Your task to perform on an android device: open a bookmark in the chrome app Image 0: 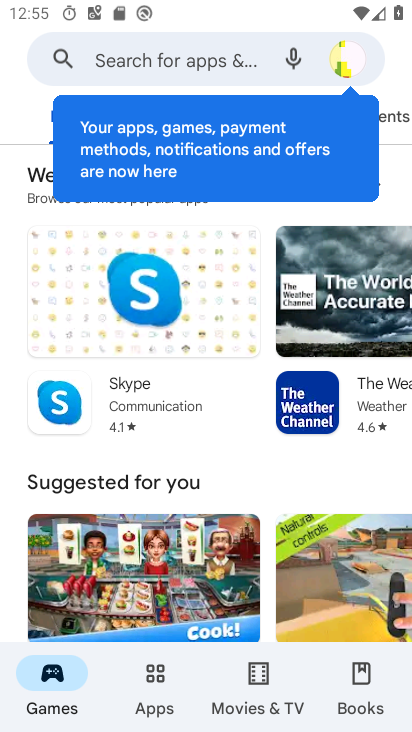
Step 0: press back button
Your task to perform on an android device: open a bookmark in the chrome app Image 1: 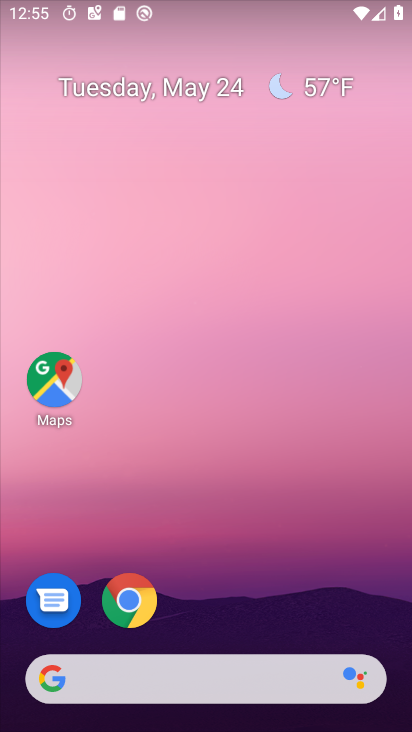
Step 1: click (138, 593)
Your task to perform on an android device: open a bookmark in the chrome app Image 2: 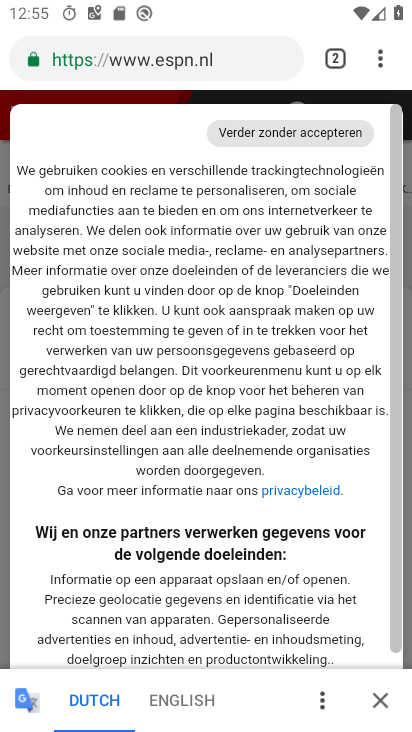
Step 2: task complete